Your task to perform on an android device: Go to display settings Image 0: 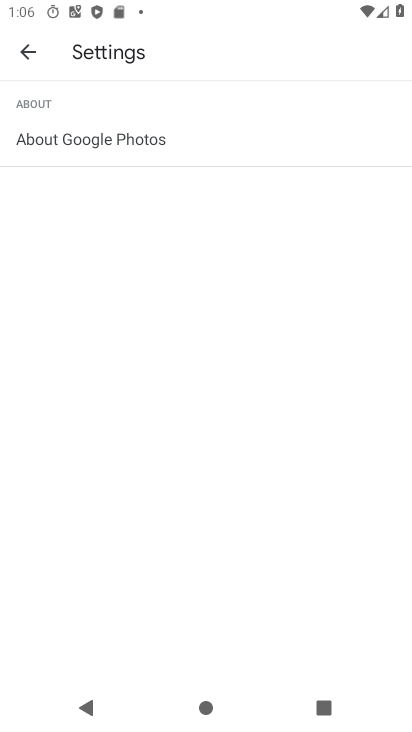
Step 0: press home button
Your task to perform on an android device: Go to display settings Image 1: 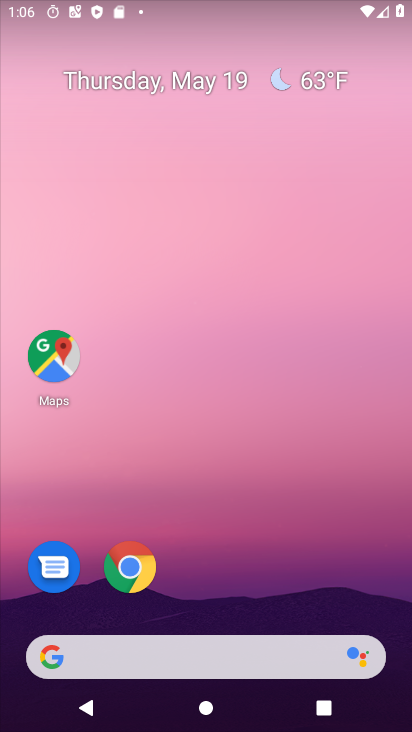
Step 1: drag from (159, 649) to (314, 219)
Your task to perform on an android device: Go to display settings Image 2: 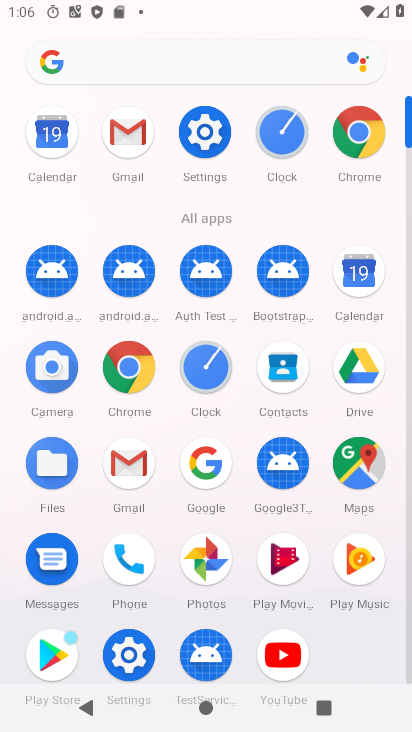
Step 2: click (212, 133)
Your task to perform on an android device: Go to display settings Image 3: 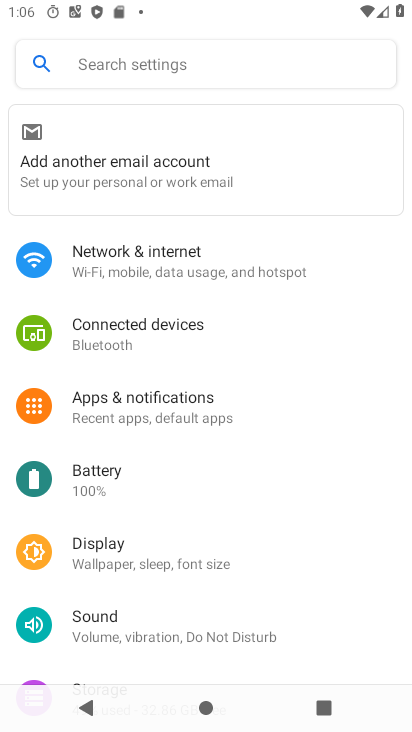
Step 3: click (136, 555)
Your task to perform on an android device: Go to display settings Image 4: 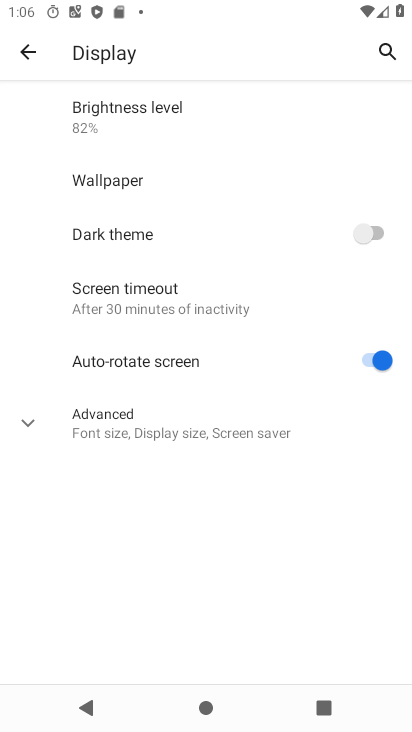
Step 4: task complete